Your task to perform on an android device: set an alarm Image 0: 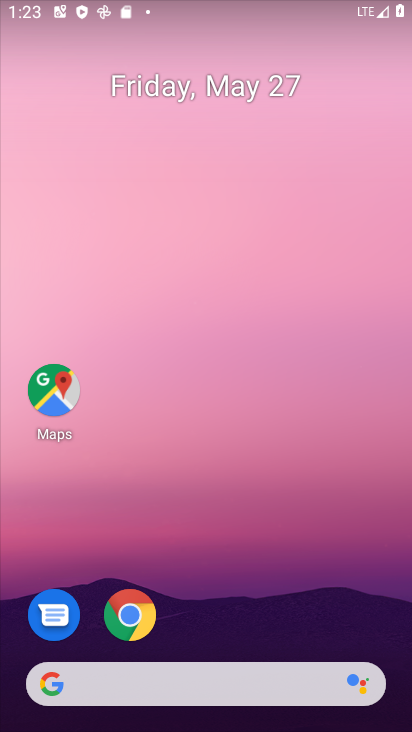
Step 0: drag from (236, 674) to (305, 7)
Your task to perform on an android device: set an alarm Image 1: 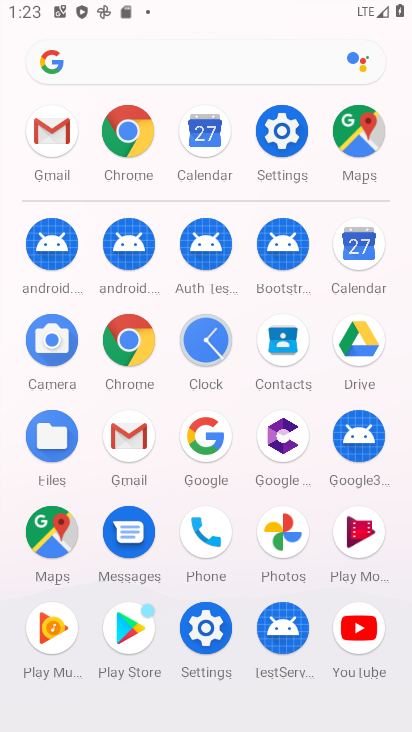
Step 1: click (211, 351)
Your task to perform on an android device: set an alarm Image 2: 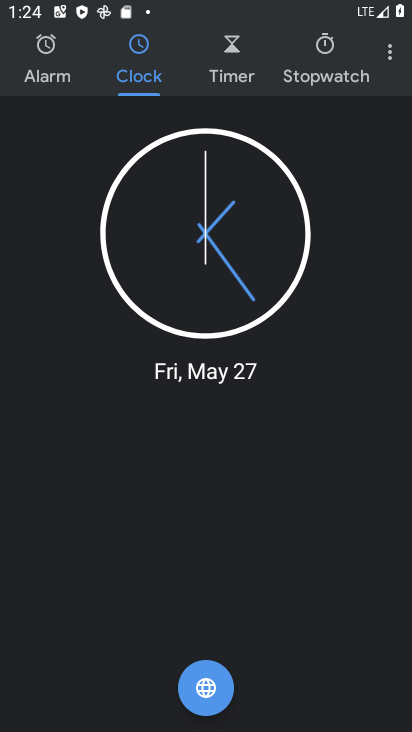
Step 2: click (62, 60)
Your task to perform on an android device: set an alarm Image 3: 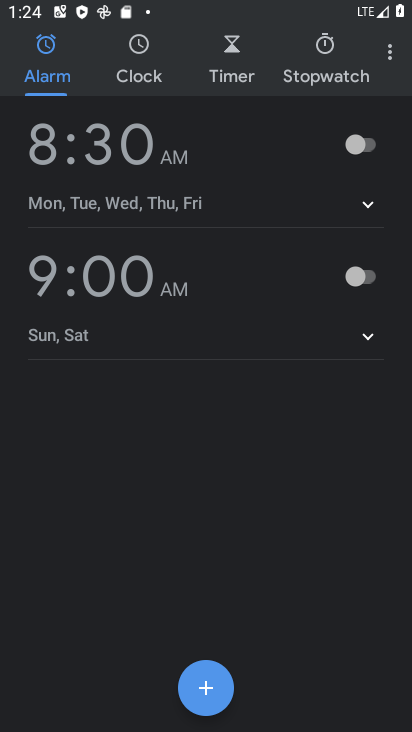
Step 3: click (374, 144)
Your task to perform on an android device: set an alarm Image 4: 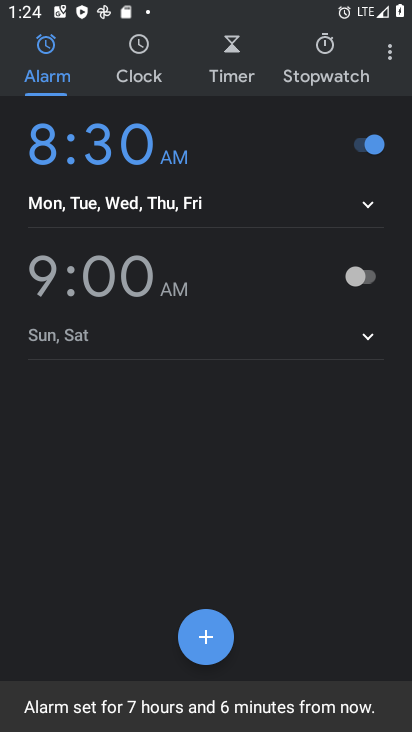
Step 4: task complete